Your task to perform on an android device: visit the assistant section in the google photos Image 0: 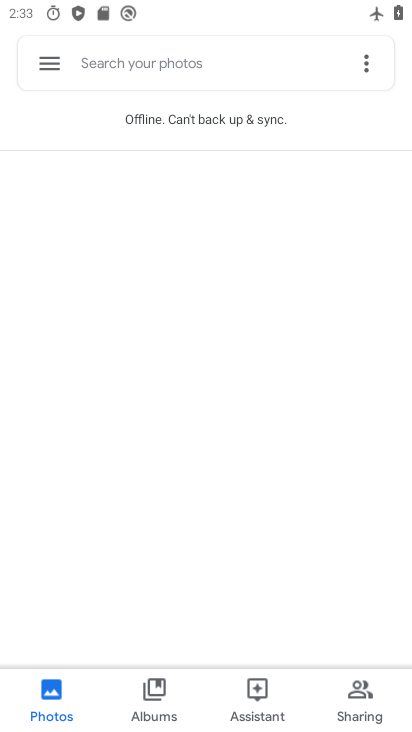
Step 0: click (246, 699)
Your task to perform on an android device: visit the assistant section in the google photos Image 1: 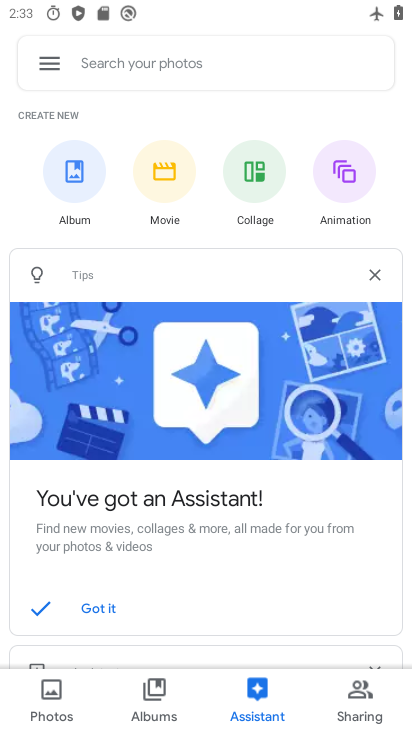
Step 1: task complete